Your task to perform on an android device: Open maps Image 0: 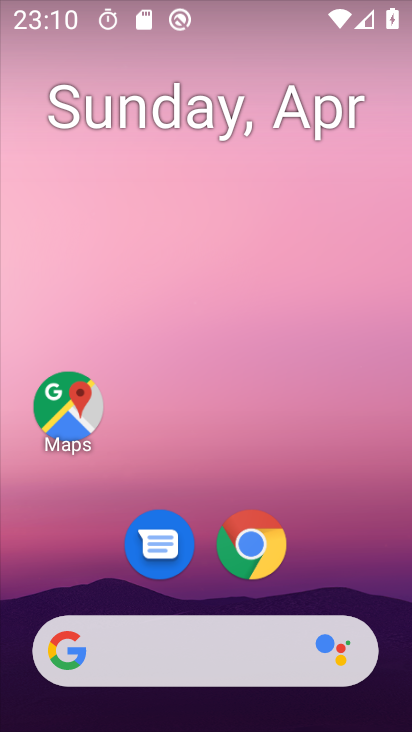
Step 0: drag from (319, 567) to (343, 201)
Your task to perform on an android device: Open maps Image 1: 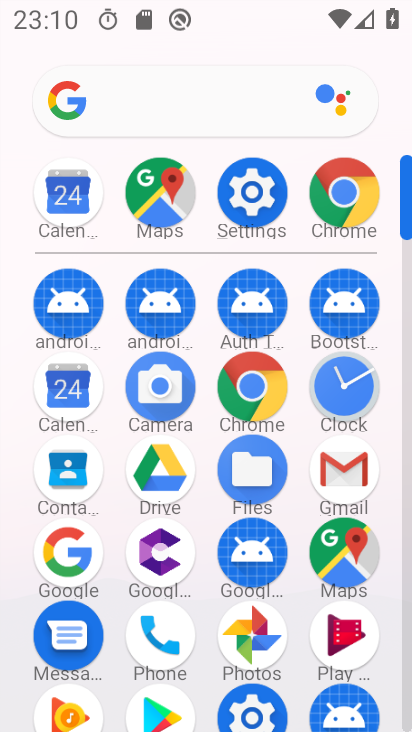
Step 1: click (338, 545)
Your task to perform on an android device: Open maps Image 2: 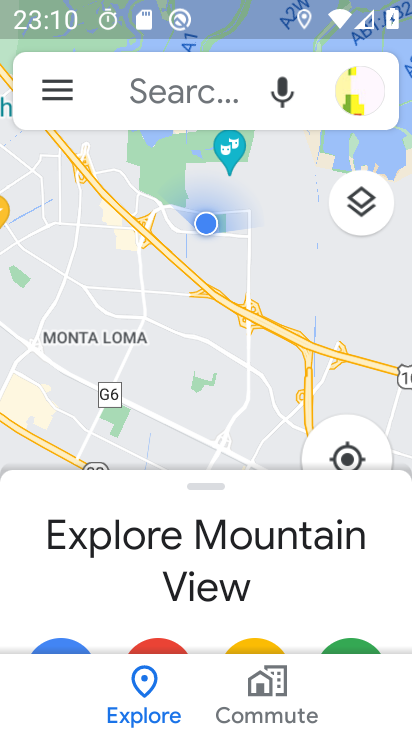
Step 2: task complete